Your task to perform on an android device: Is it going to rain today? Image 0: 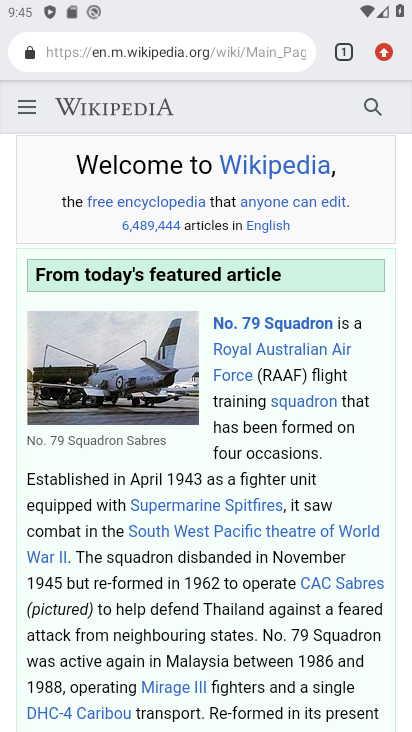
Step 0: press home button
Your task to perform on an android device: Is it going to rain today? Image 1: 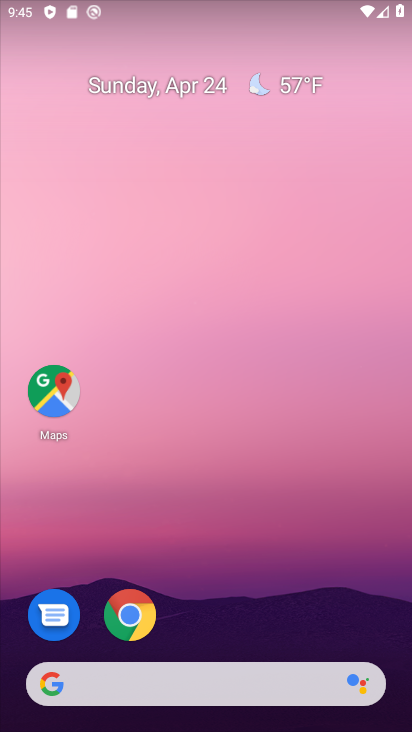
Step 1: click (288, 81)
Your task to perform on an android device: Is it going to rain today? Image 2: 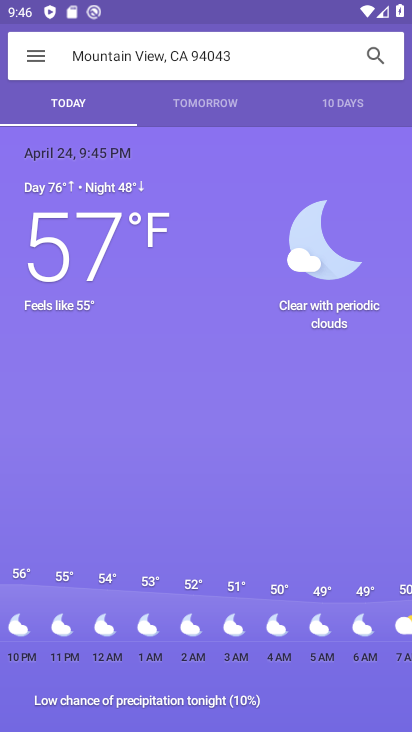
Step 2: task complete